Your task to perform on an android device: install app "Spotify: Music and Podcasts" Image 0: 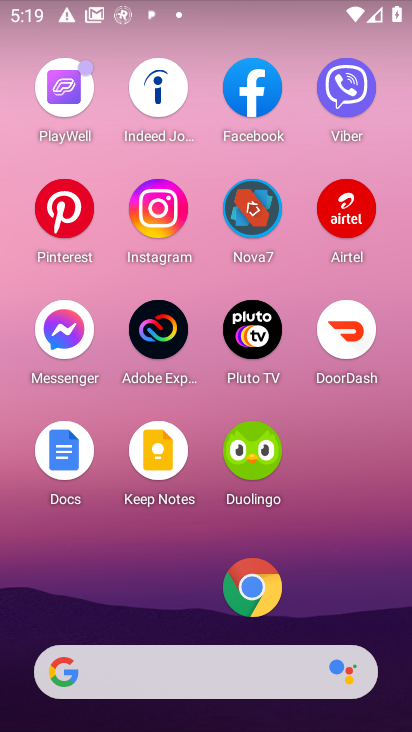
Step 0: drag from (158, 514) to (158, 122)
Your task to perform on an android device: install app "Spotify: Music and Podcasts" Image 1: 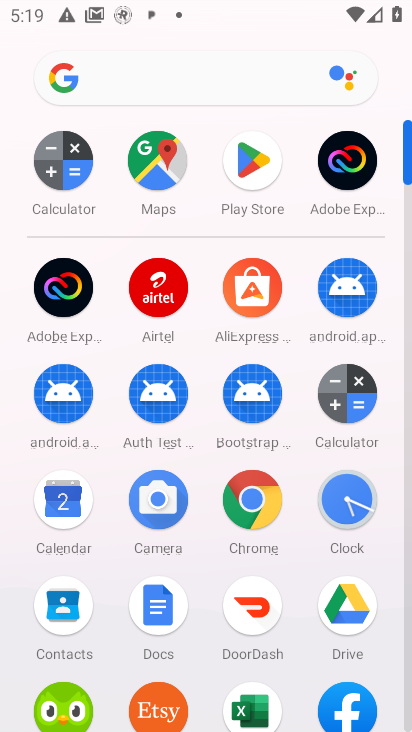
Step 1: click (247, 161)
Your task to perform on an android device: install app "Spotify: Music and Podcasts" Image 2: 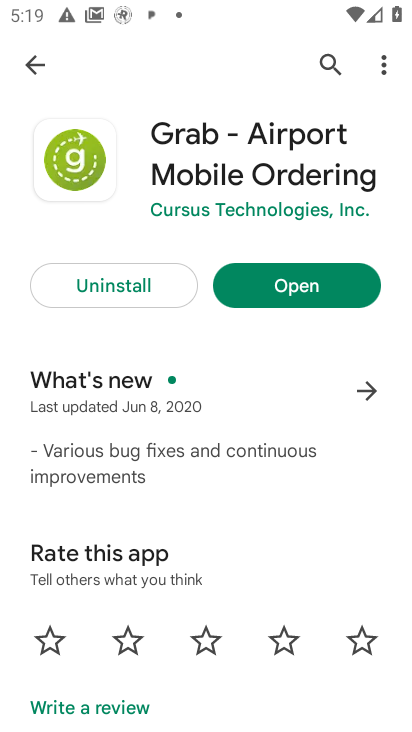
Step 2: click (335, 73)
Your task to perform on an android device: install app "Spotify: Music and Podcasts" Image 3: 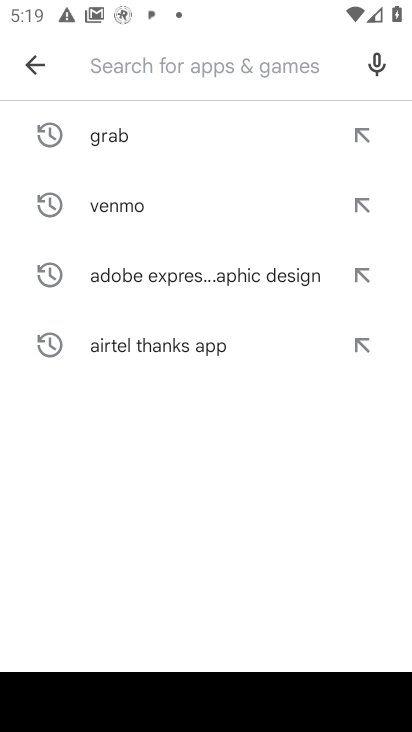
Step 3: type "Spotify: Music and Podcasts"
Your task to perform on an android device: install app "Spotify: Music and Podcasts" Image 4: 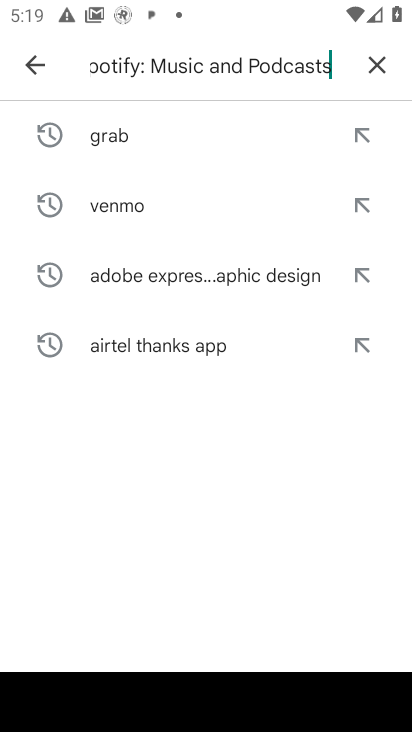
Step 4: type ""
Your task to perform on an android device: install app "Spotify: Music and Podcasts" Image 5: 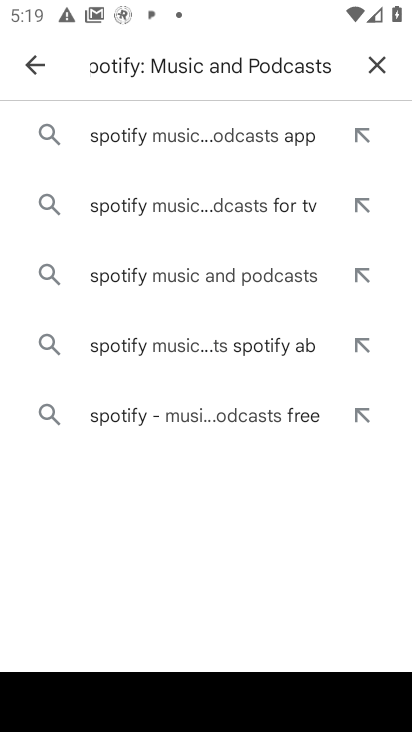
Step 5: click (183, 138)
Your task to perform on an android device: install app "Spotify: Music and Podcasts" Image 6: 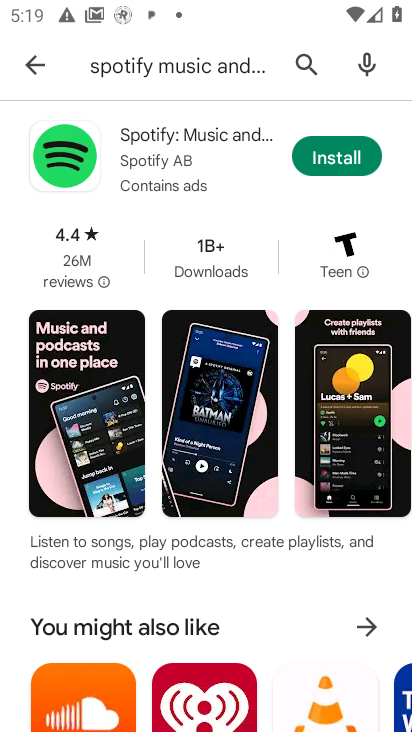
Step 6: click (325, 158)
Your task to perform on an android device: install app "Spotify: Music and Podcasts" Image 7: 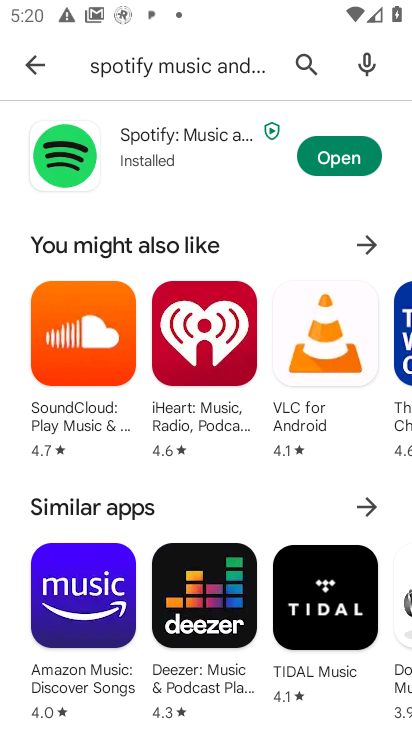
Step 7: task complete